Your task to perform on an android device: Go to Android settings Image 0: 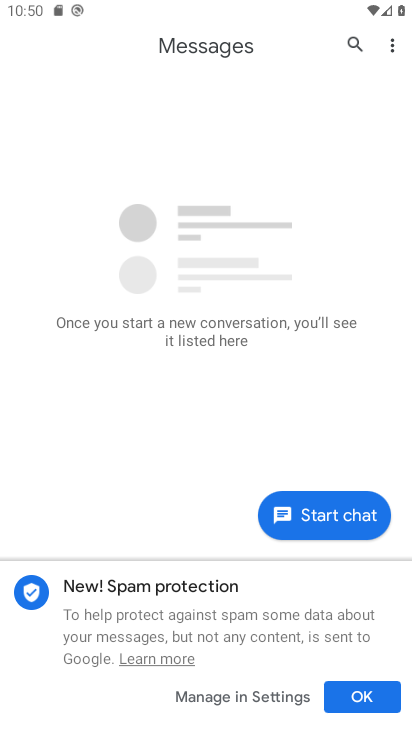
Step 0: press home button
Your task to perform on an android device: Go to Android settings Image 1: 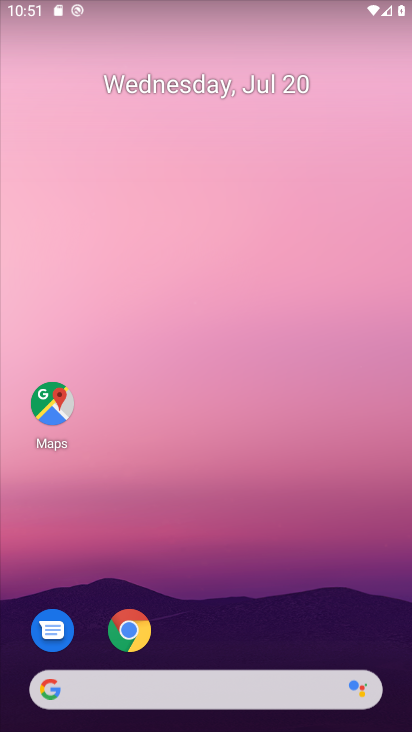
Step 1: drag from (280, 209) to (280, 163)
Your task to perform on an android device: Go to Android settings Image 2: 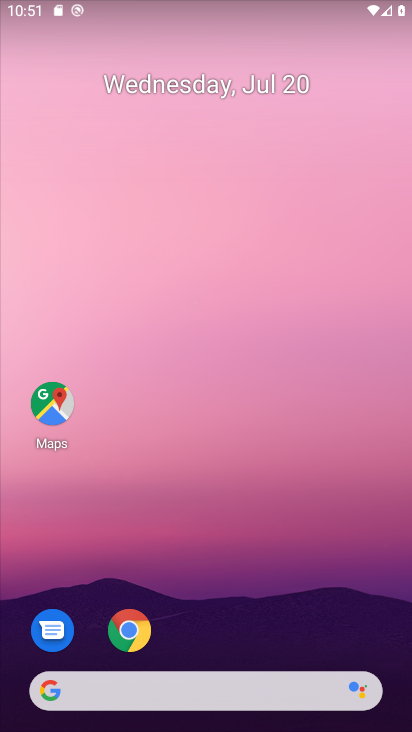
Step 2: drag from (264, 488) to (258, 73)
Your task to perform on an android device: Go to Android settings Image 3: 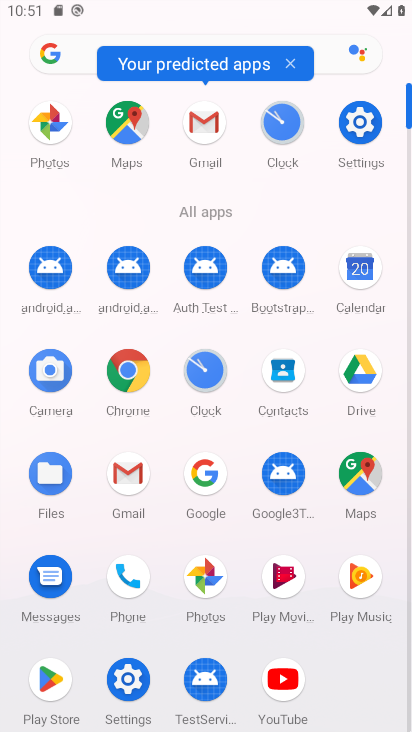
Step 3: click (127, 684)
Your task to perform on an android device: Go to Android settings Image 4: 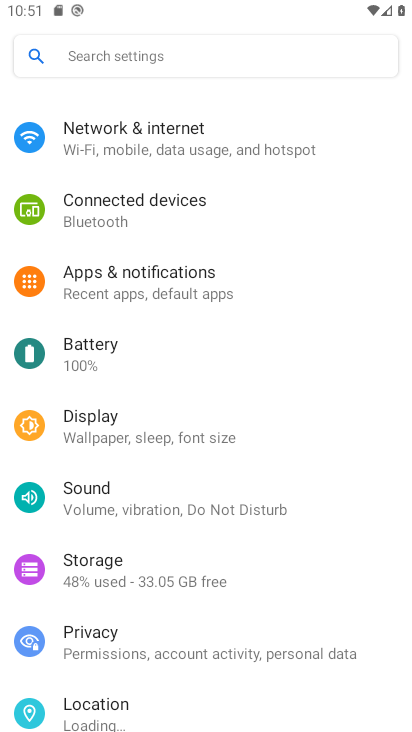
Step 4: task complete